Your task to perform on an android device: delete browsing data in the chrome app Image 0: 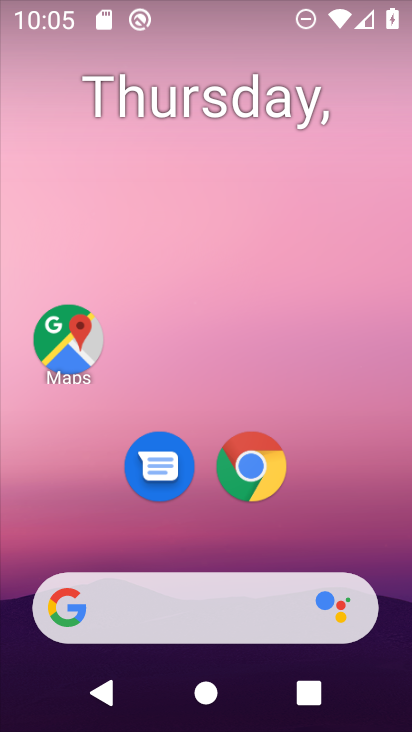
Step 0: drag from (246, 584) to (285, 2)
Your task to perform on an android device: delete browsing data in the chrome app Image 1: 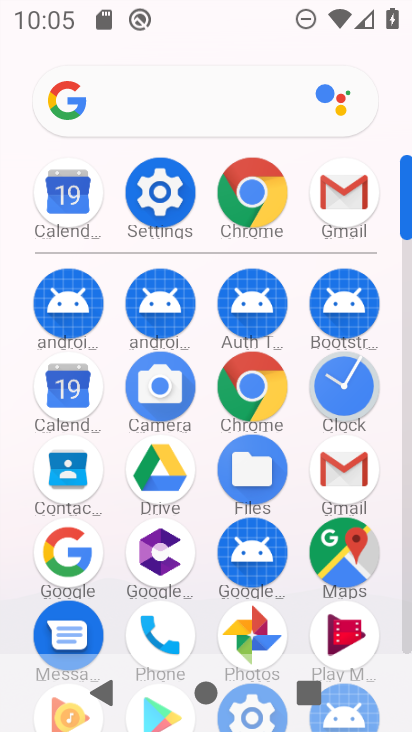
Step 1: click (254, 386)
Your task to perform on an android device: delete browsing data in the chrome app Image 2: 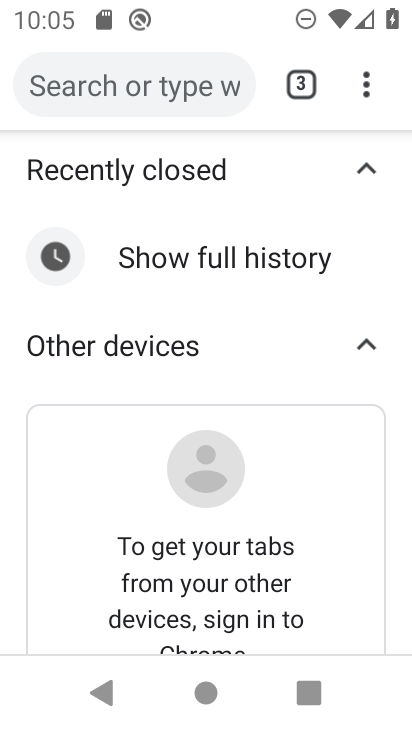
Step 2: drag from (371, 87) to (152, 478)
Your task to perform on an android device: delete browsing data in the chrome app Image 3: 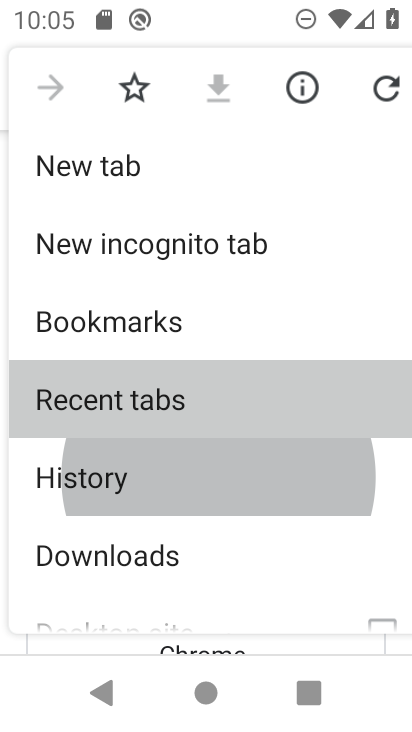
Step 3: drag from (140, 508) to (127, 587)
Your task to perform on an android device: delete browsing data in the chrome app Image 4: 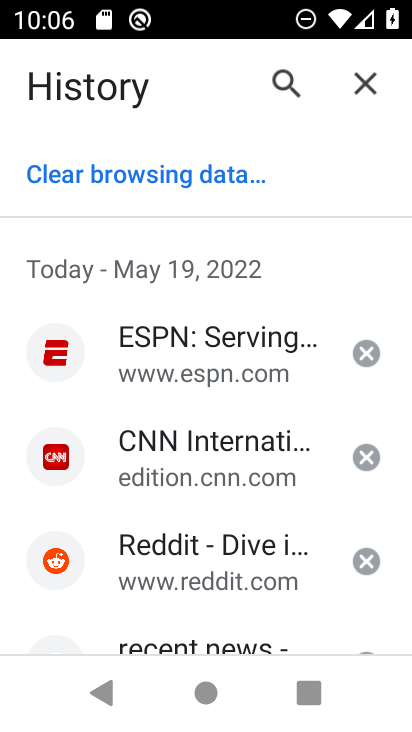
Step 4: click (227, 177)
Your task to perform on an android device: delete browsing data in the chrome app Image 5: 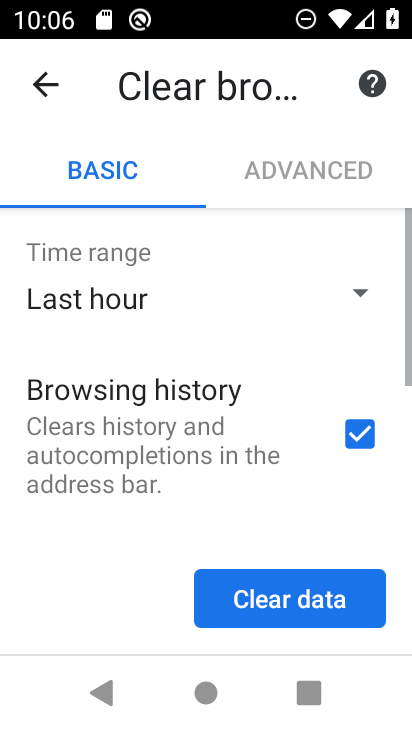
Step 5: click (312, 579)
Your task to perform on an android device: delete browsing data in the chrome app Image 6: 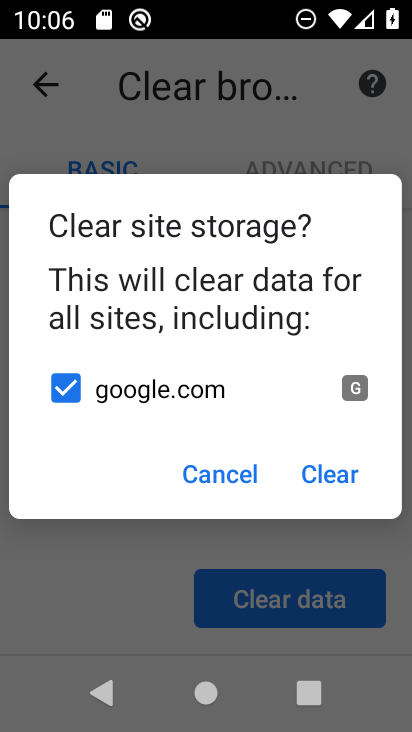
Step 6: click (339, 476)
Your task to perform on an android device: delete browsing data in the chrome app Image 7: 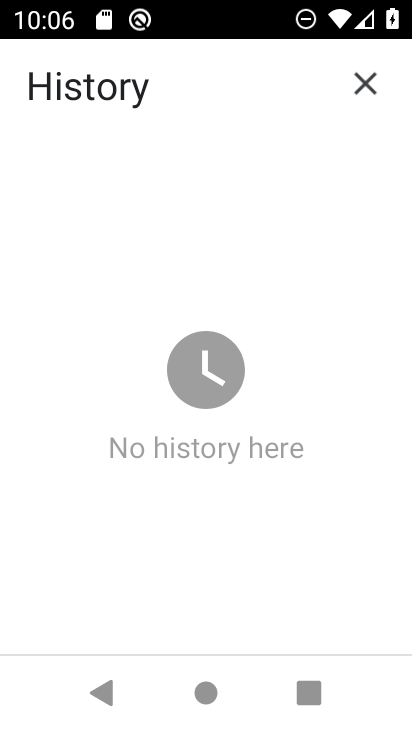
Step 7: task complete